Your task to perform on an android device: manage bookmarks in the chrome app Image 0: 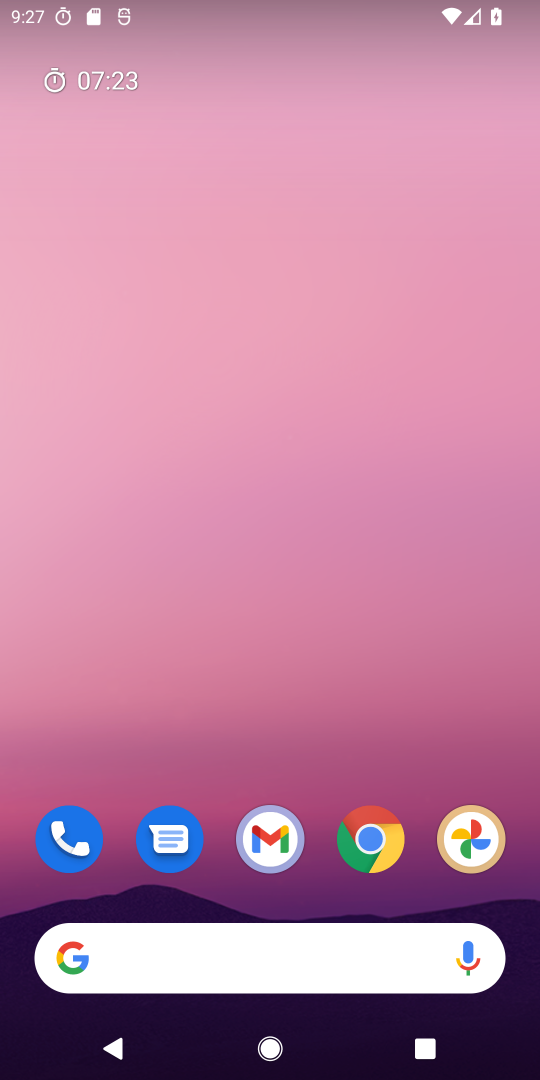
Step 0: press home button
Your task to perform on an android device: manage bookmarks in the chrome app Image 1: 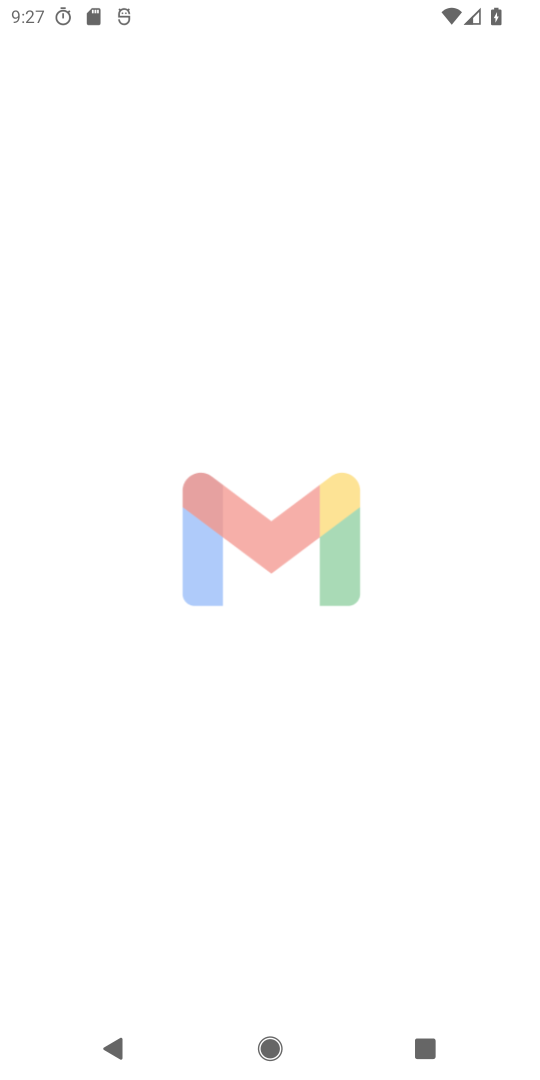
Step 1: click (344, 136)
Your task to perform on an android device: manage bookmarks in the chrome app Image 2: 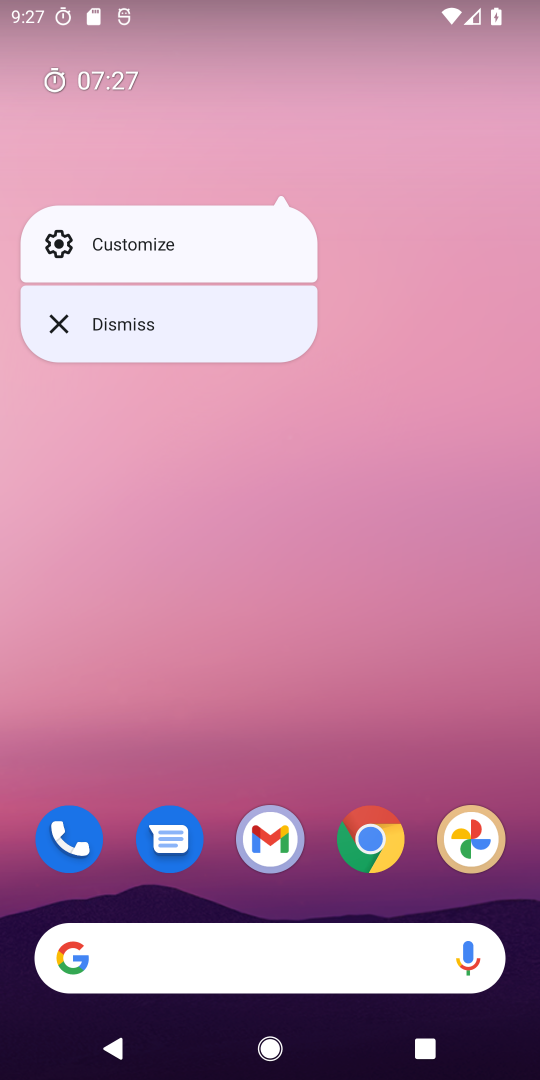
Step 2: drag from (320, 888) to (359, 96)
Your task to perform on an android device: manage bookmarks in the chrome app Image 3: 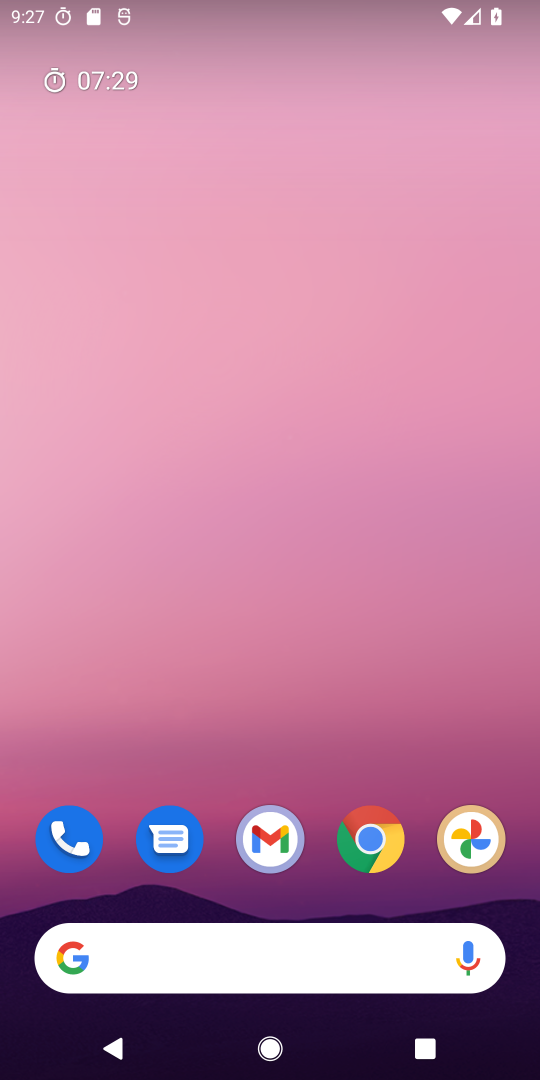
Step 3: drag from (332, 896) to (309, 96)
Your task to perform on an android device: manage bookmarks in the chrome app Image 4: 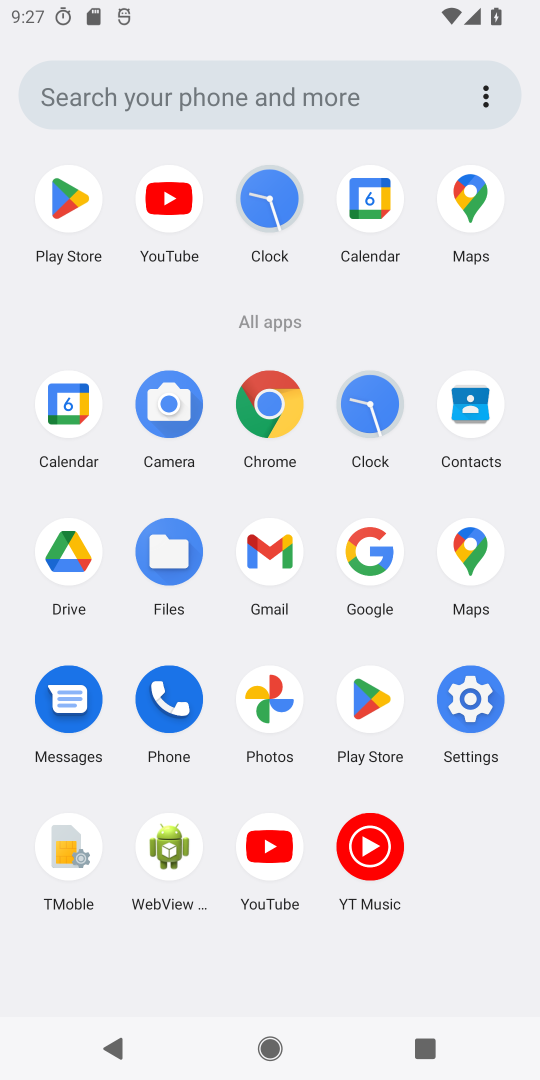
Step 4: click (260, 404)
Your task to perform on an android device: manage bookmarks in the chrome app Image 5: 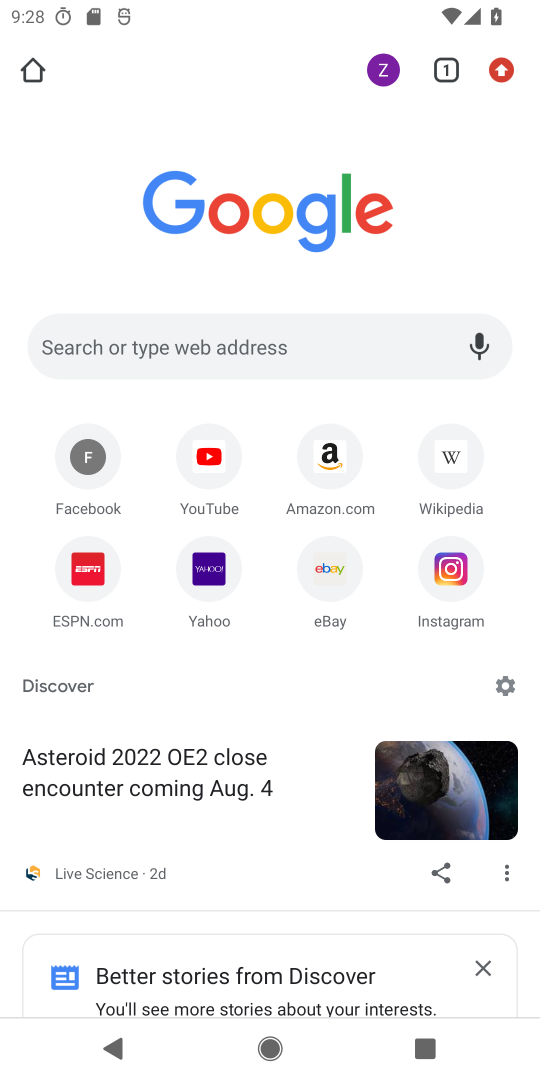
Step 5: click (501, 68)
Your task to perform on an android device: manage bookmarks in the chrome app Image 6: 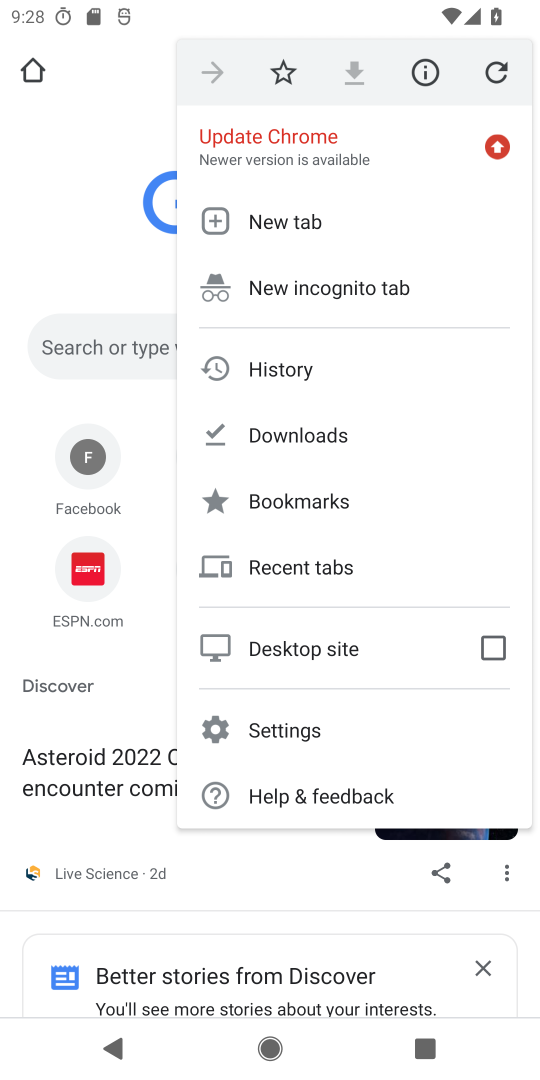
Step 6: click (349, 503)
Your task to perform on an android device: manage bookmarks in the chrome app Image 7: 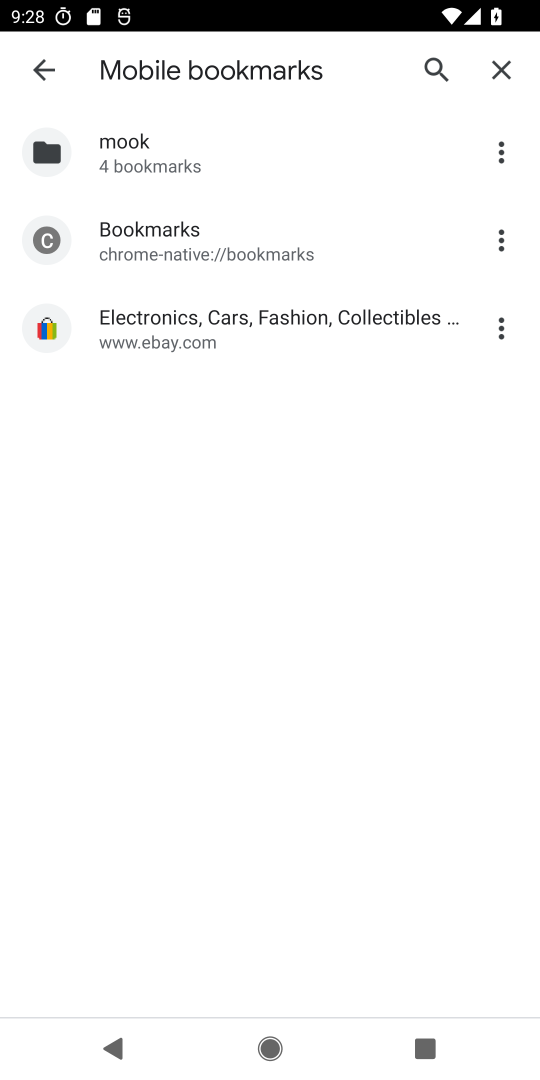
Step 7: click (504, 324)
Your task to perform on an android device: manage bookmarks in the chrome app Image 8: 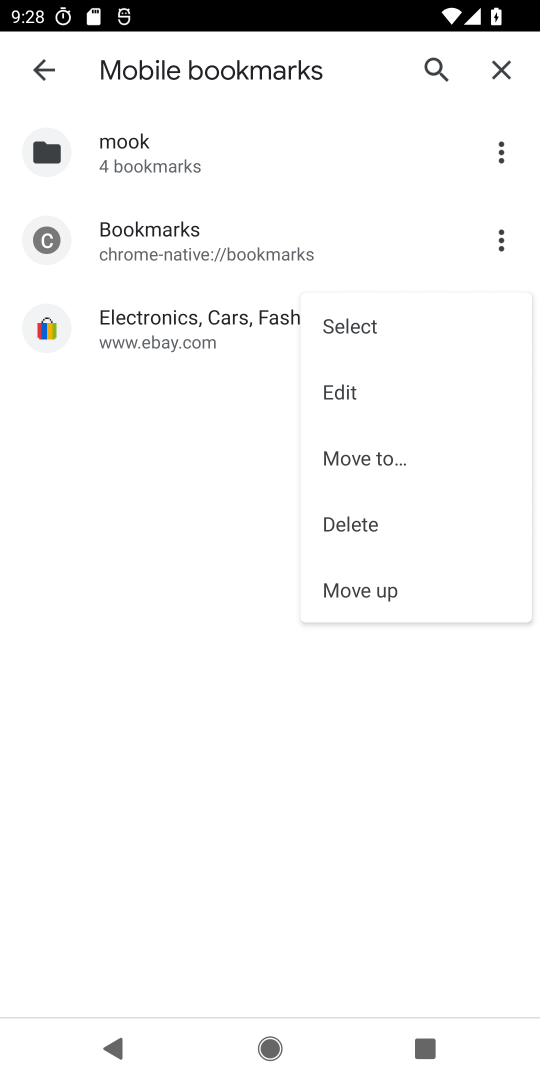
Step 8: click (386, 529)
Your task to perform on an android device: manage bookmarks in the chrome app Image 9: 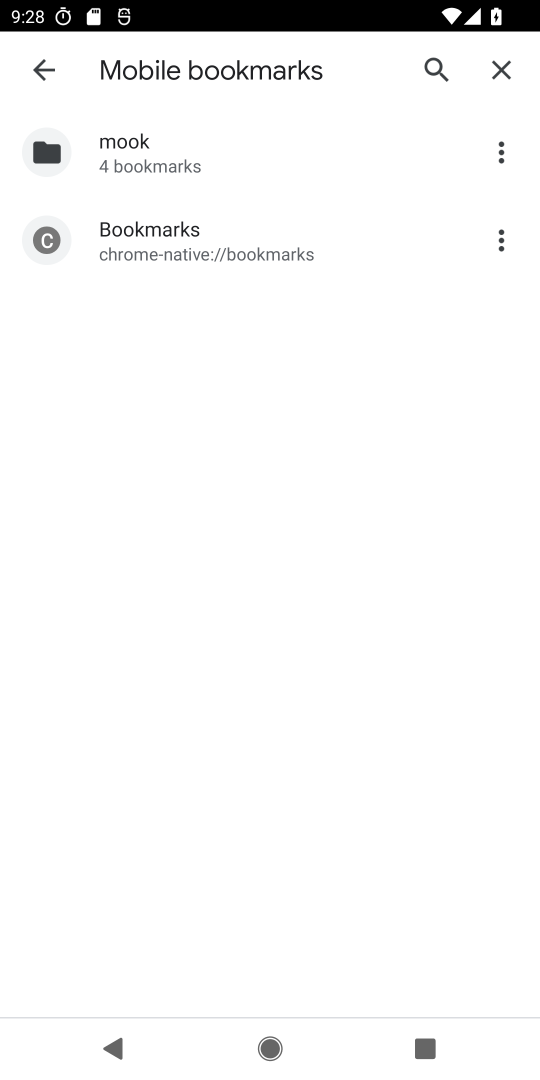
Step 9: task complete